Your task to perform on an android device: What's the weather? Image 0: 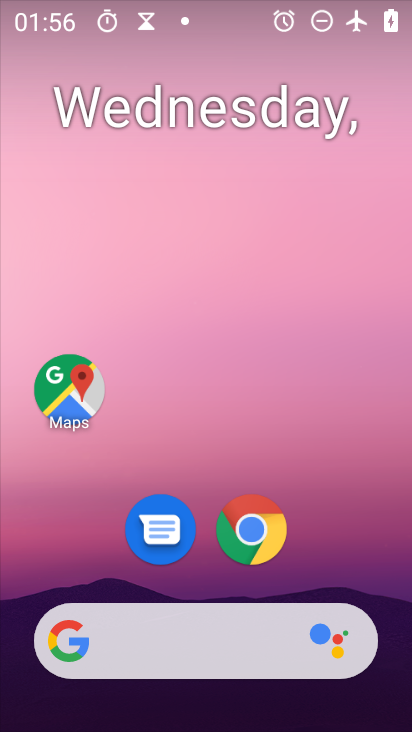
Step 0: drag from (208, 625) to (184, 40)
Your task to perform on an android device: What's the weather? Image 1: 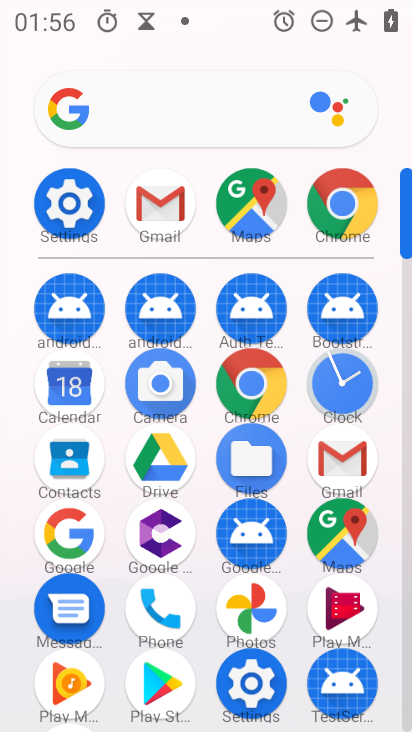
Step 1: press home button
Your task to perform on an android device: What's the weather? Image 2: 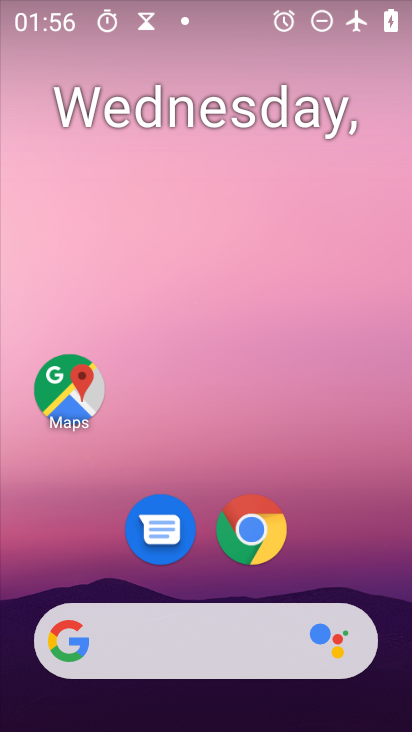
Step 2: drag from (67, 298) to (362, 297)
Your task to perform on an android device: What's the weather? Image 3: 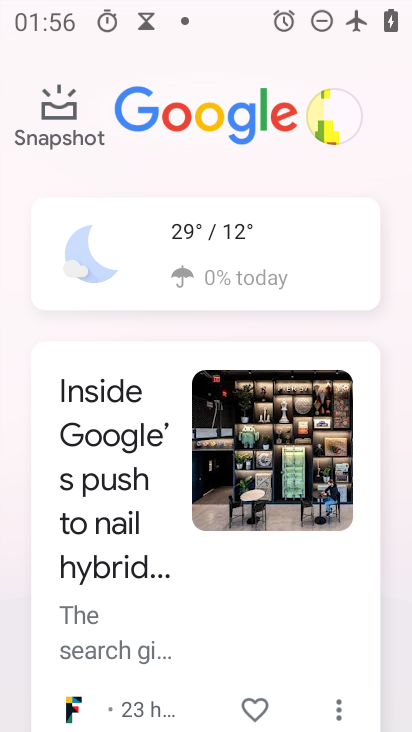
Step 3: click (153, 275)
Your task to perform on an android device: What's the weather? Image 4: 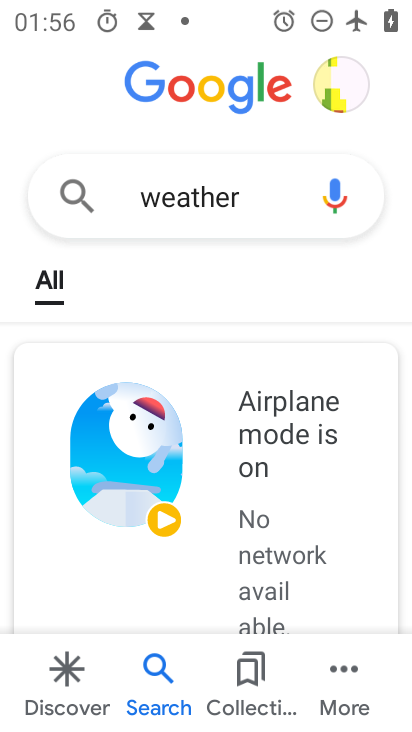
Step 4: task complete